Your task to perform on an android device: snooze an email in the gmail app Image 0: 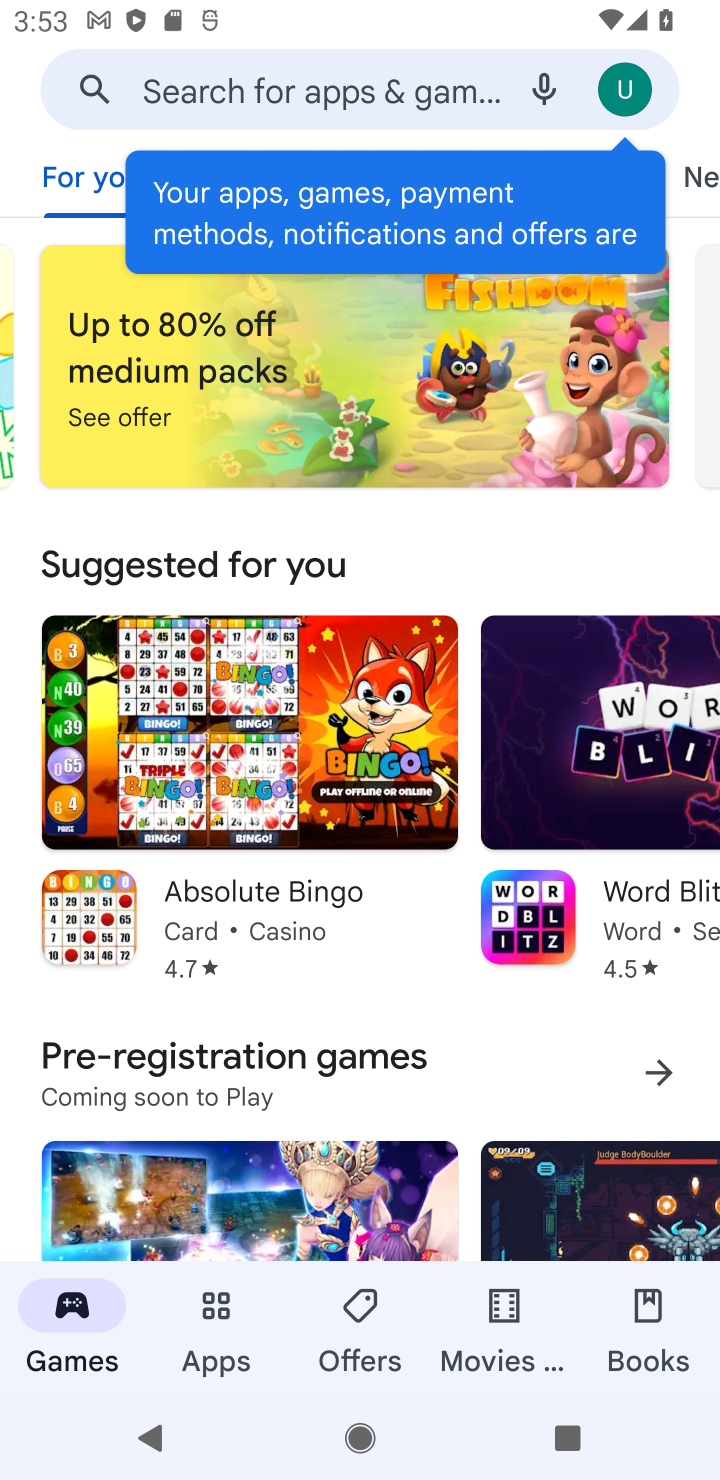
Step 0: task complete